Your task to perform on an android device: What is the news today? Image 0: 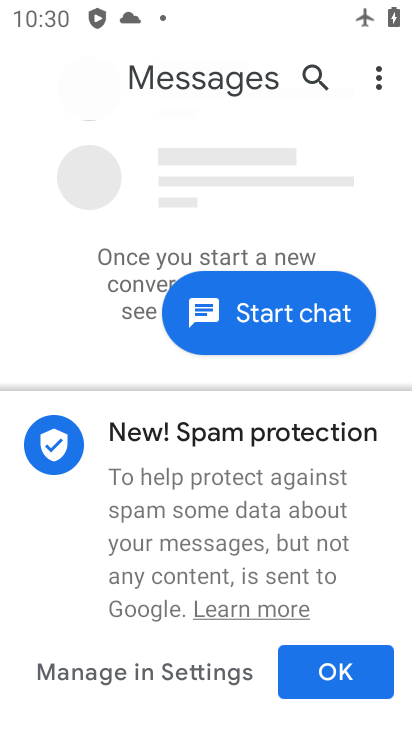
Step 0: press home button
Your task to perform on an android device: What is the news today? Image 1: 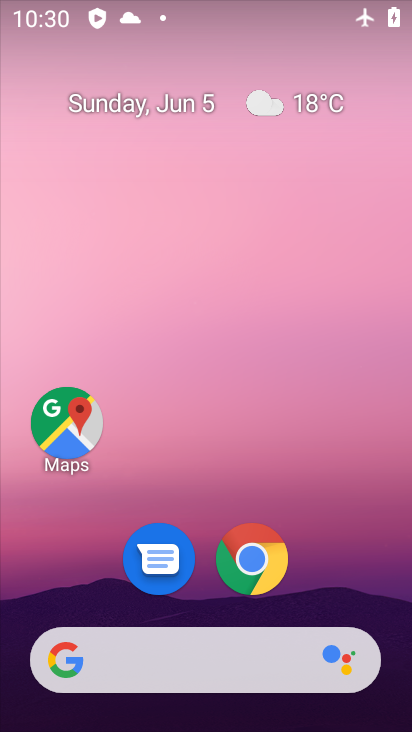
Step 1: task complete